Your task to perform on an android device: open app "McDonald's" Image 0: 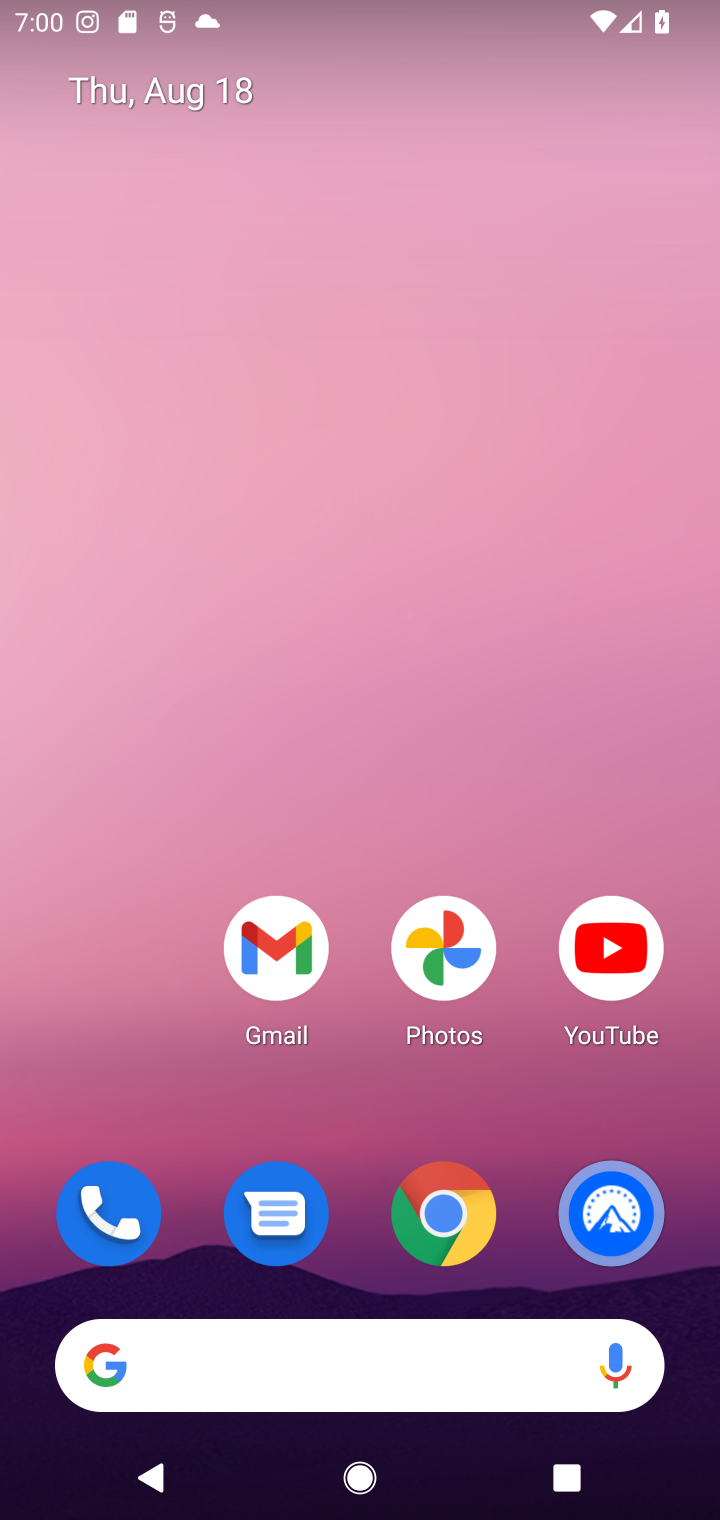
Step 0: drag from (356, 1143) to (418, 1)
Your task to perform on an android device: open app "McDonald's" Image 1: 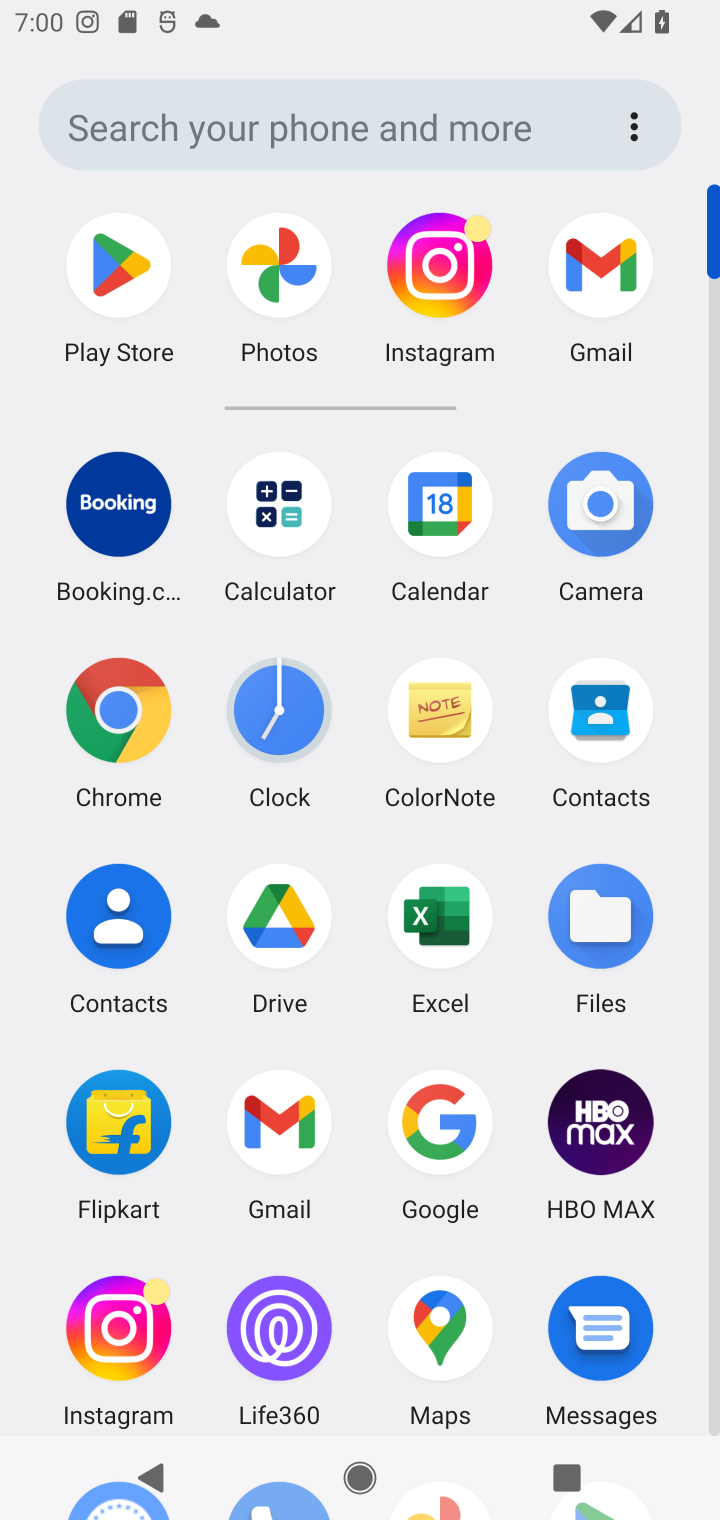
Step 1: click (98, 254)
Your task to perform on an android device: open app "McDonald's" Image 2: 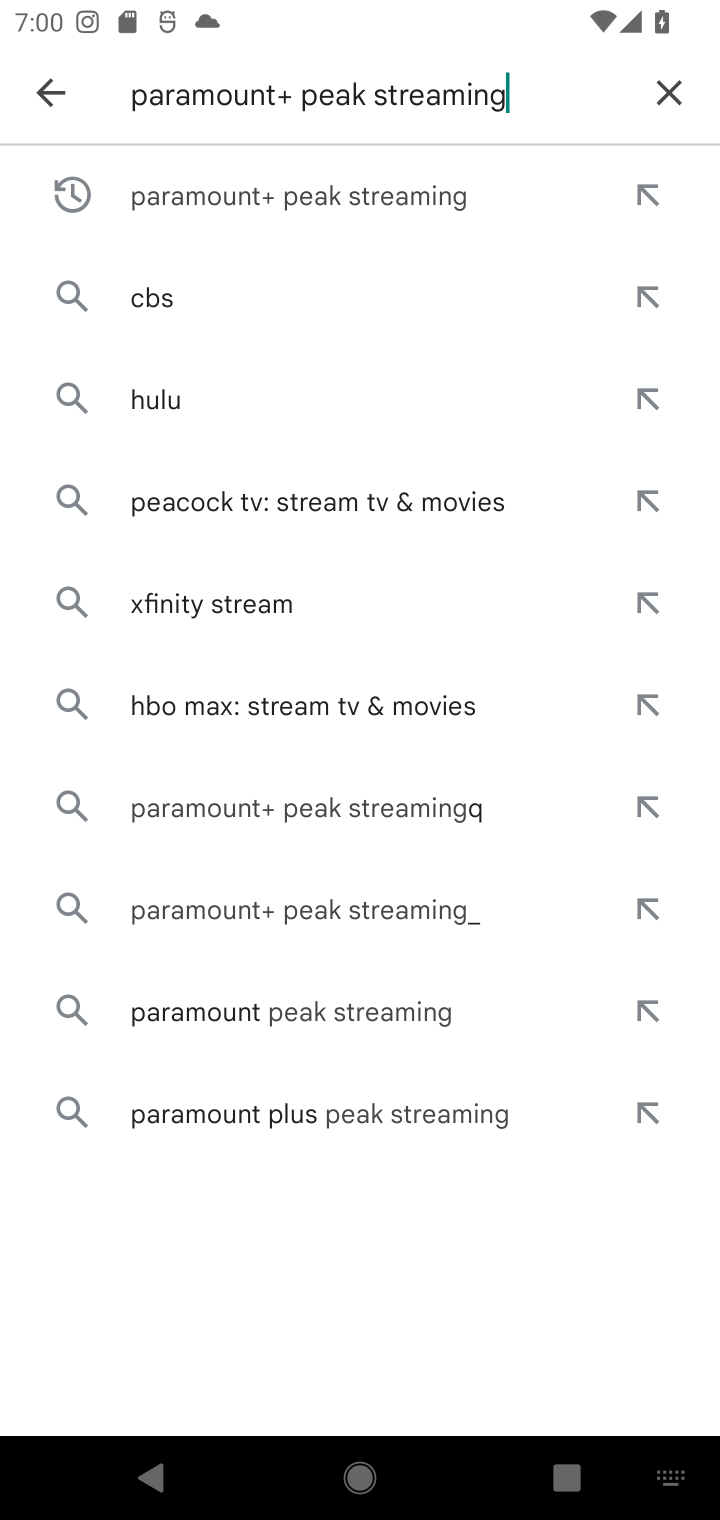
Step 2: click (668, 95)
Your task to perform on an android device: open app "McDonald's" Image 3: 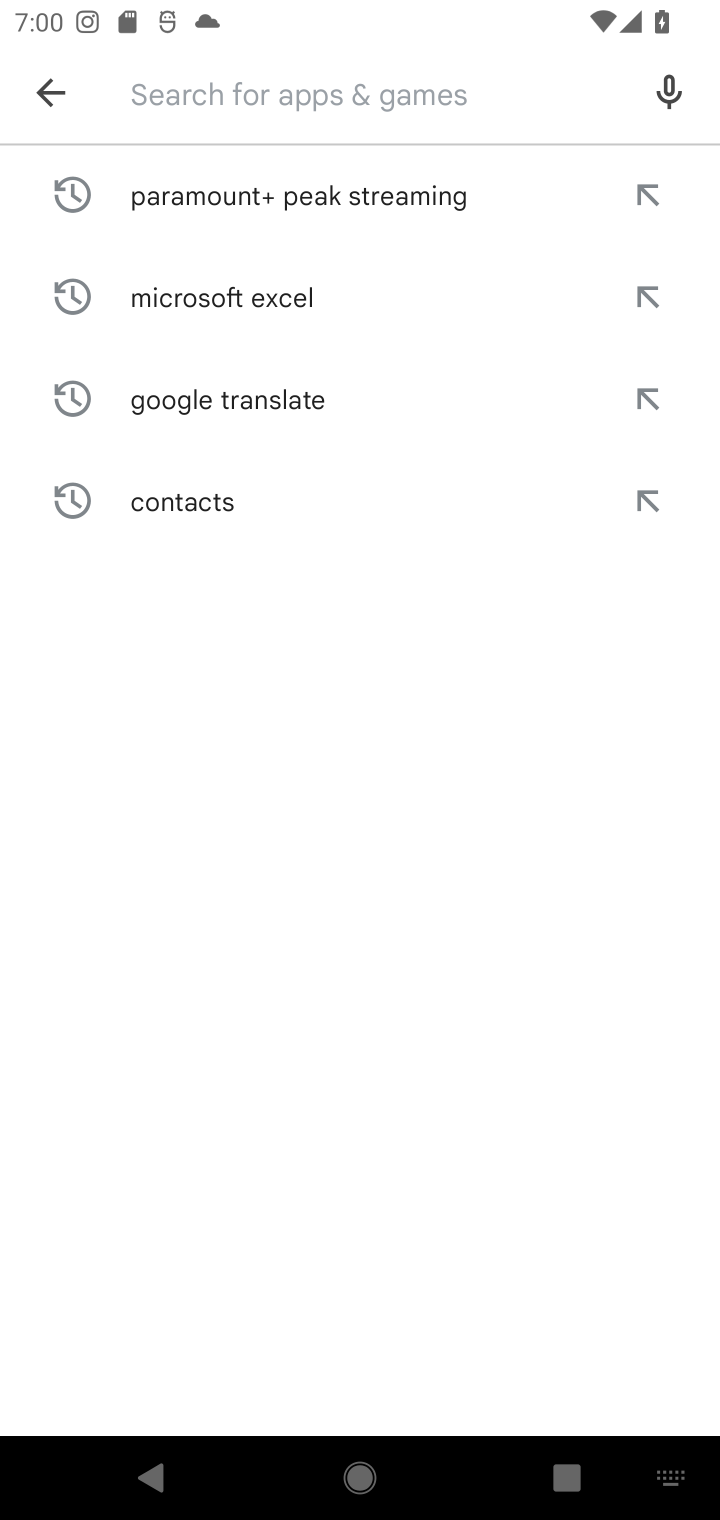
Step 3: type "McDonald's"
Your task to perform on an android device: open app "McDonald's" Image 4: 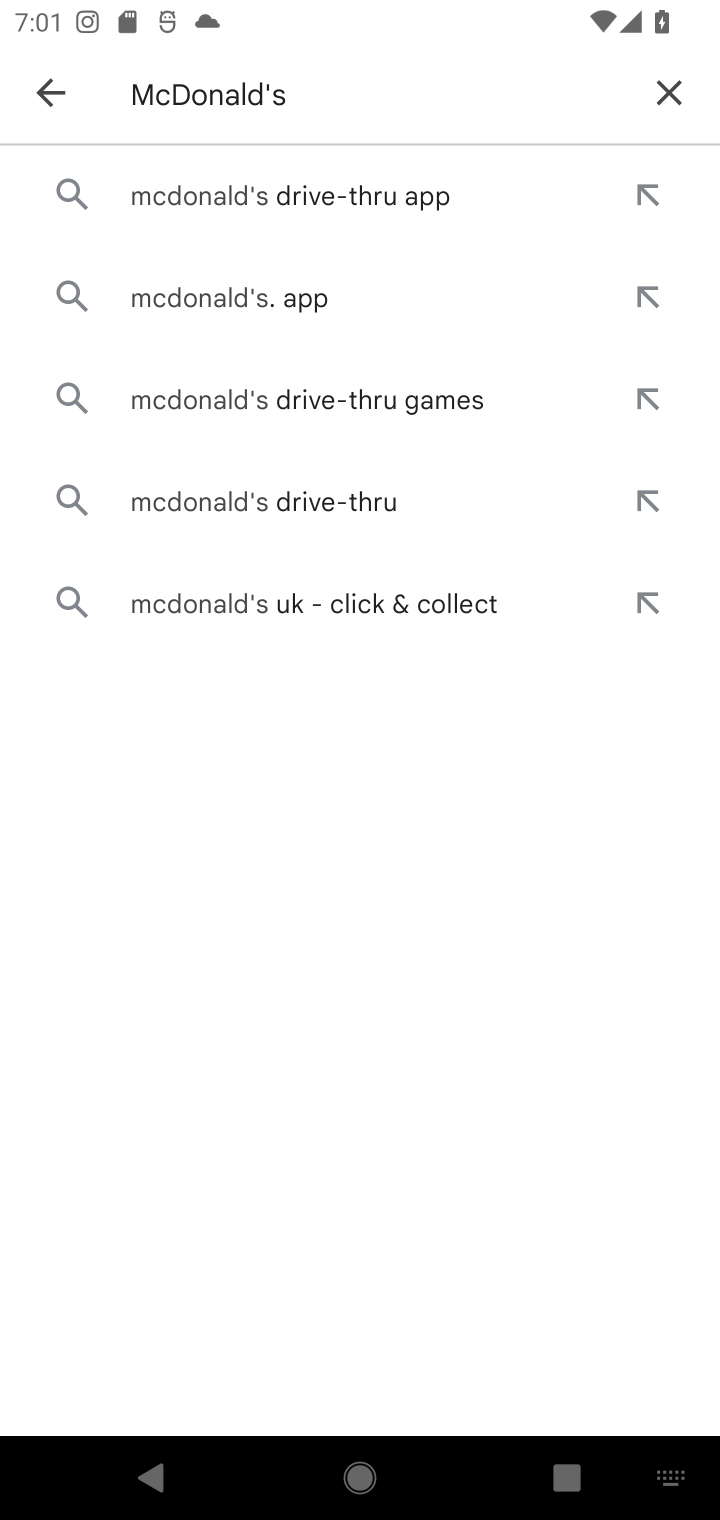
Step 4: click (354, 294)
Your task to perform on an android device: open app "McDonald's" Image 5: 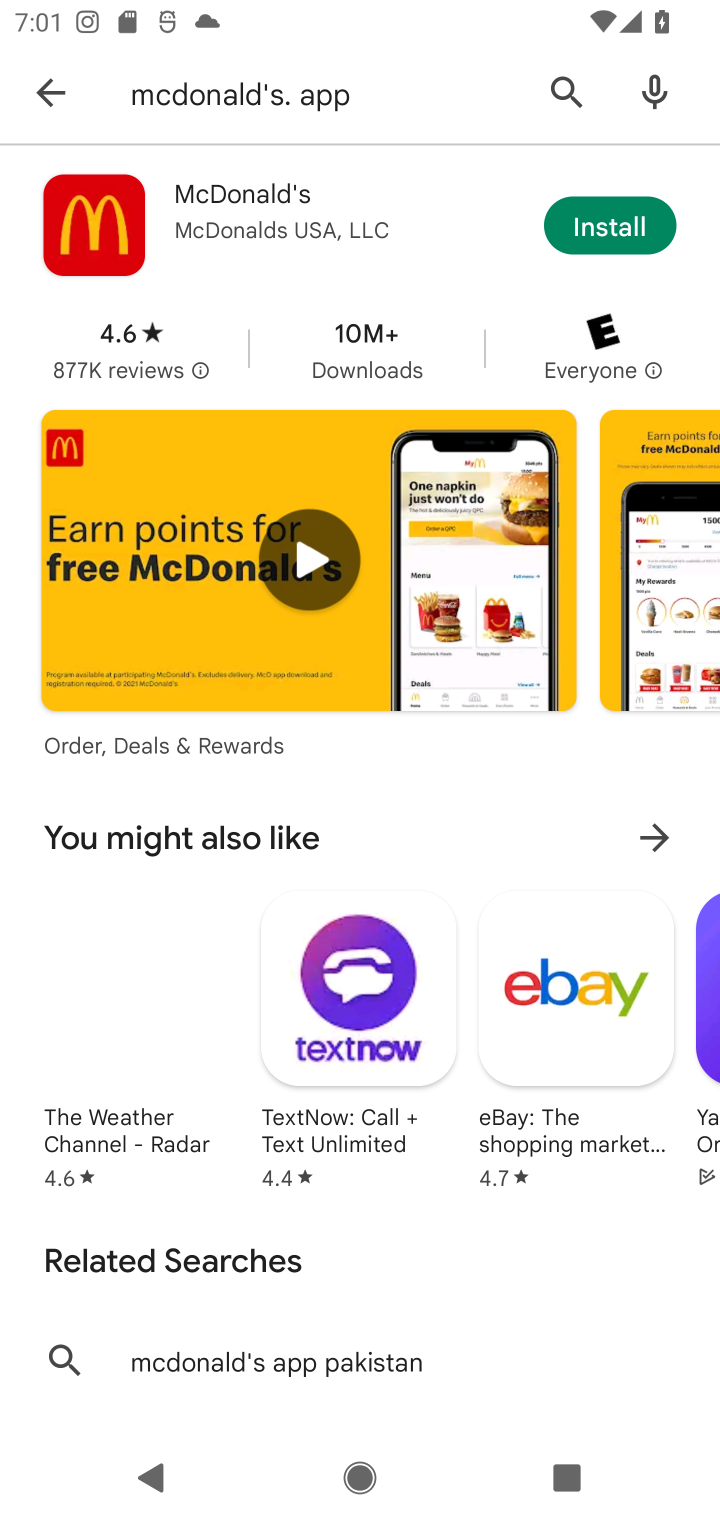
Step 5: task complete